Your task to perform on an android device: refresh tabs in the chrome app Image 0: 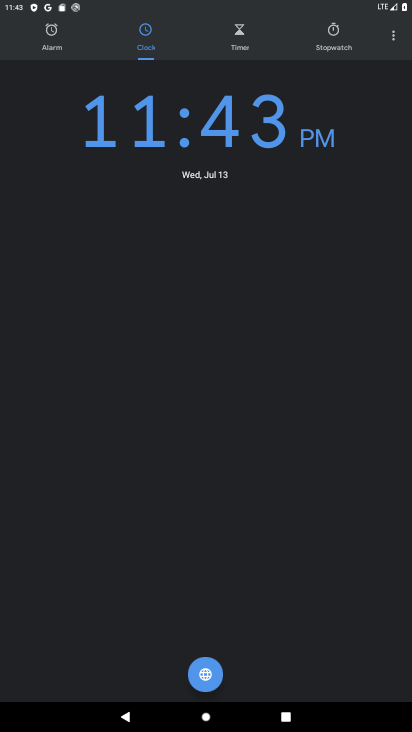
Step 0: press home button
Your task to perform on an android device: refresh tabs in the chrome app Image 1: 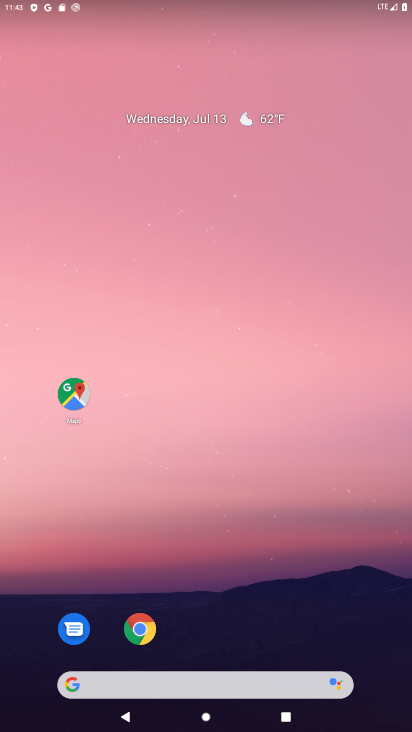
Step 1: click (142, 625)
Your task to perform on an android device: refresh tabs in the chrome app Image 2: 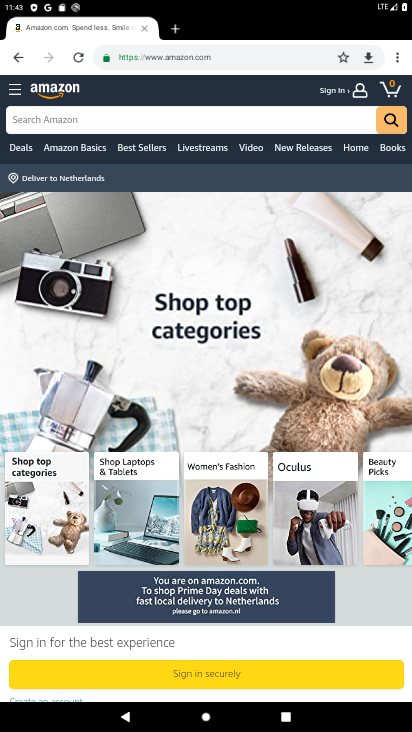
Step 2: click (82, 50)
Your task to perform on an android device: refresh tabs in the chrome app Image 3: 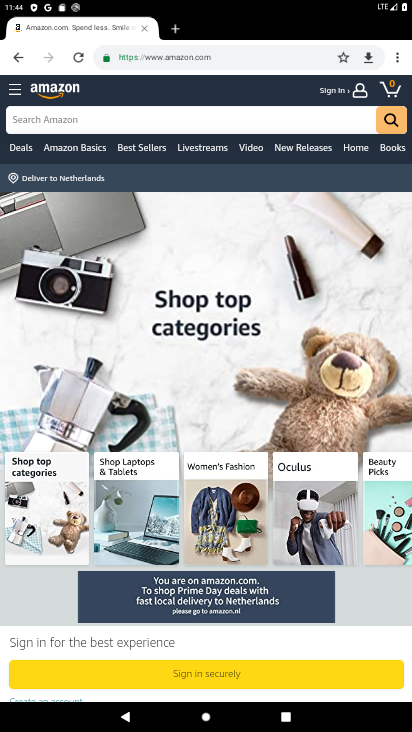
Step 3: task complete